Your task to perform on an android device: Go to Google Image 0: 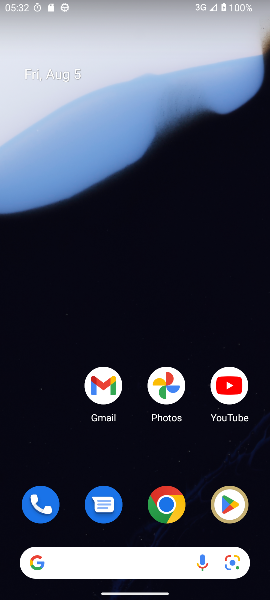
Step 0: click (98, 563)
Your task to perform on an android device: Go to Google Image 1: 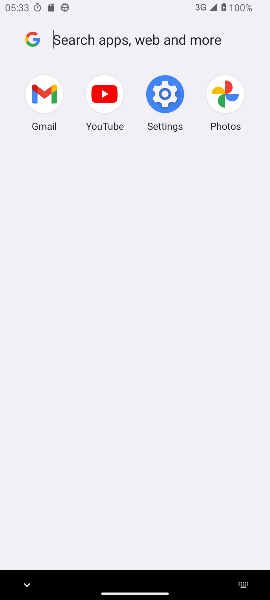
Step 1: task complete